Your task to perform on an android device: Do I have any events today? Image 0: 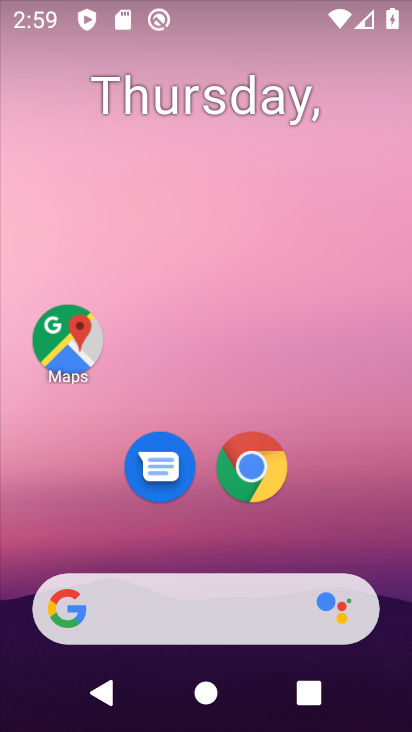
Step 0: drag from (213, 596) to (212, 7)
Your task to perform on an android device: Do I have any events today? Image 1: 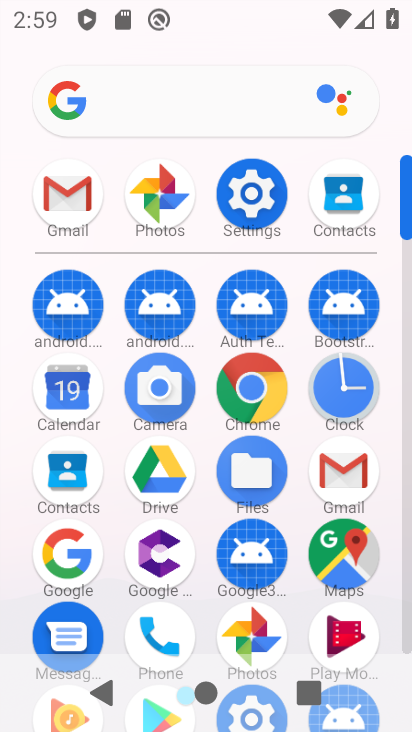
Step 1: click (56, 391)
Your task to perform on an android device: Do I have any events today? Image 2: 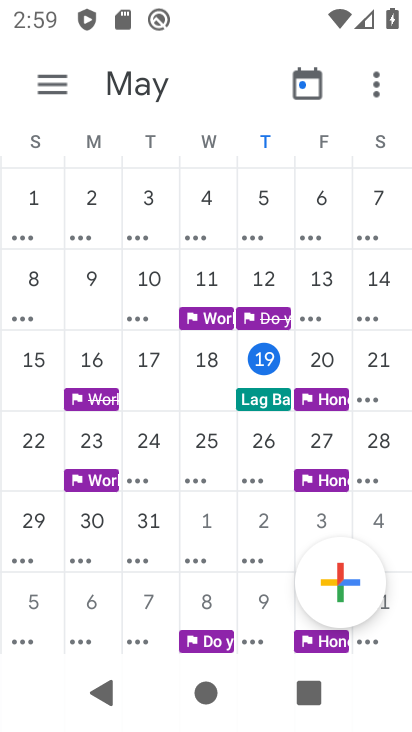
Step 2: click (44, 76)
Your task to perform on an android device: Do I have any events today? Image 3: 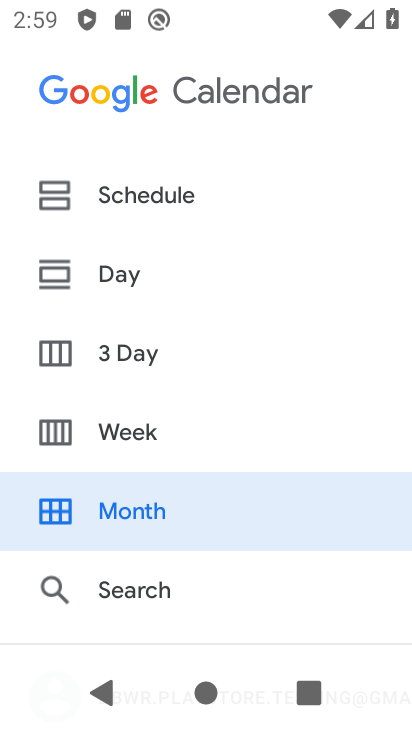
Step 3: click (134, 191)
Your task to perform on an android device: Do I have any events today? Image 4: 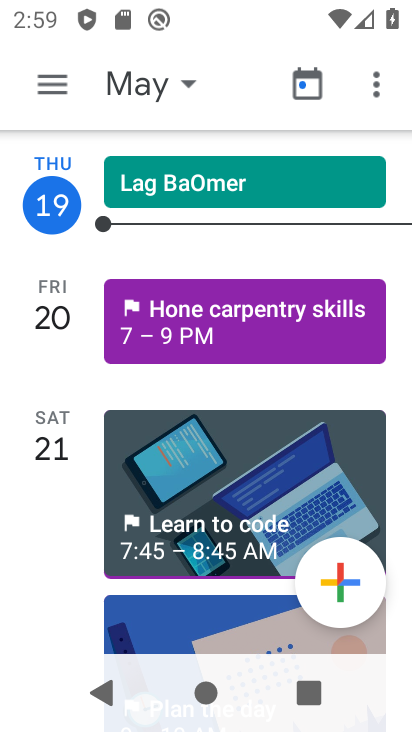
Step 4: task complete